Your task to perform on an android device: turn off data saver in the chrome app Image 0: 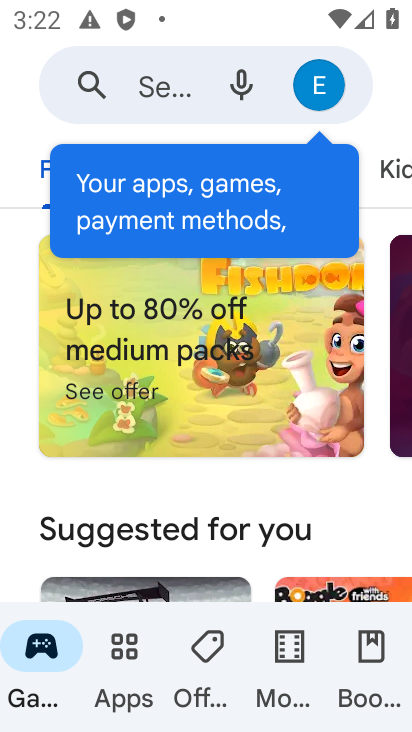
Step 0: press home button
Your task to perform on an android device: turn off data saver in the chrome app Image 1: 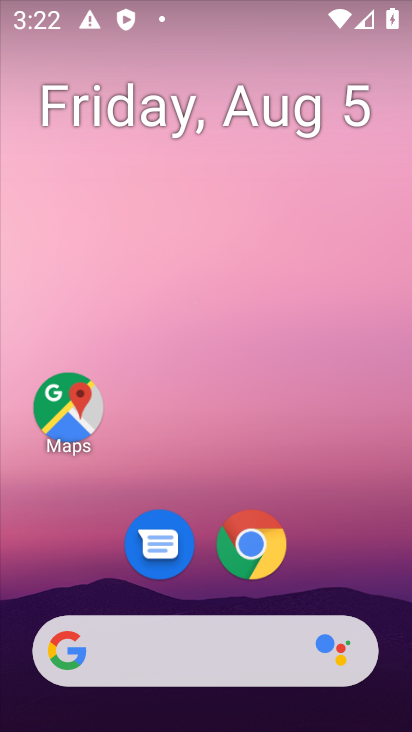
Step 1: click (242, 545)
Your task to perform on an android device: turn off data saver in the chrome app Image 2: 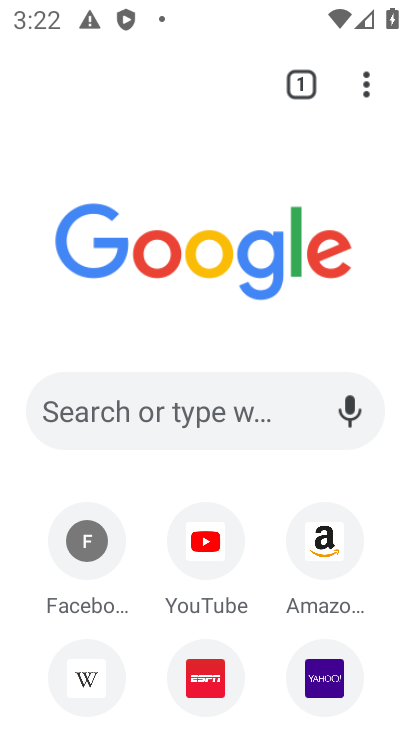
Step 2: click (372, 79)
Your task to perform on an android device: turn off data saver in the chrome app Image 3: 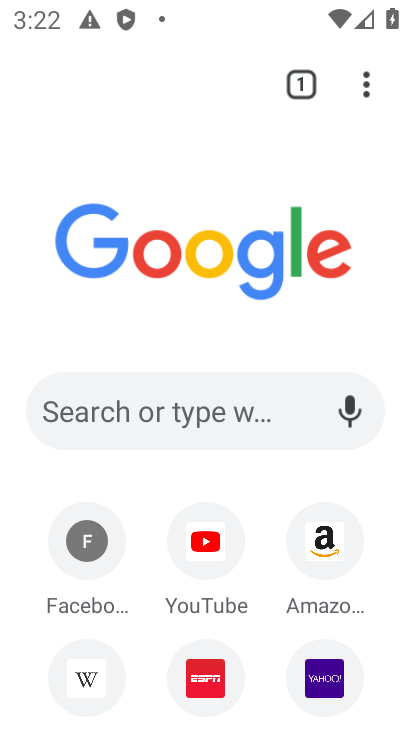
Step 3: click (362, 84)
Your task to perform on an android device: turn off data saver in the chrome app Image 4: 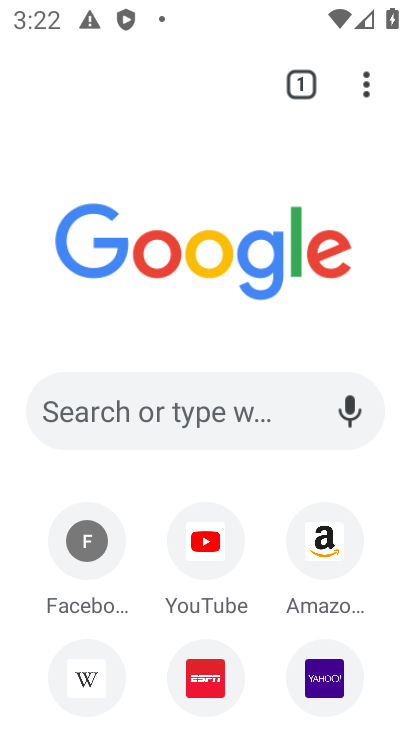
Step 4: click (362, 84)
Your task to perform on an android device: turn off data saver in the chrome app Image 5: 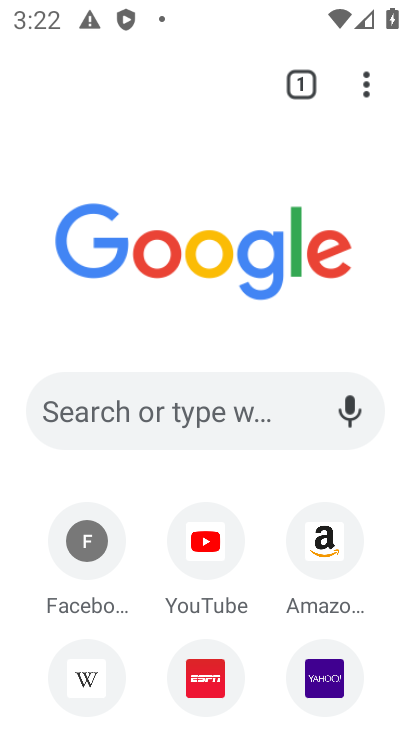
Step 5: click (367, 88)
Your task to perform on an android device: turn off data saver in the chrome app Image 6: 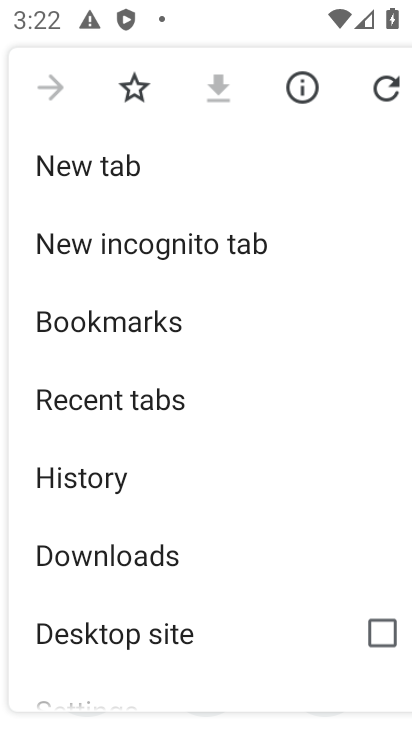
Step 6: drag from (89, 671) to (123, 229)
Your task to perform on an android device: turn off data saver in the chrome app Image 7: 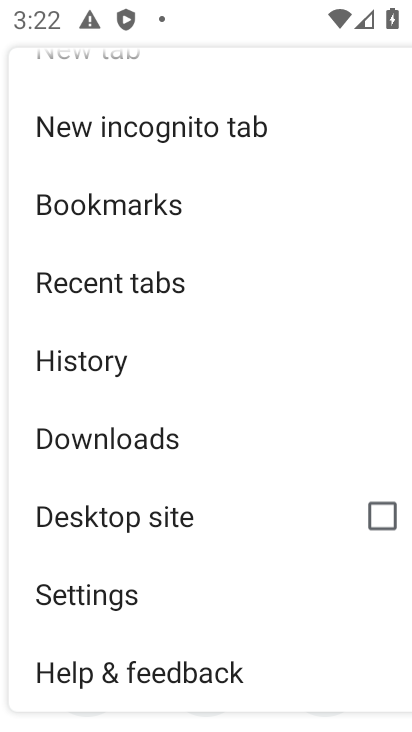
Step 7: click (79, 595)
Your task to perform on an android device: turn off data saver in the chrome app Image 8: 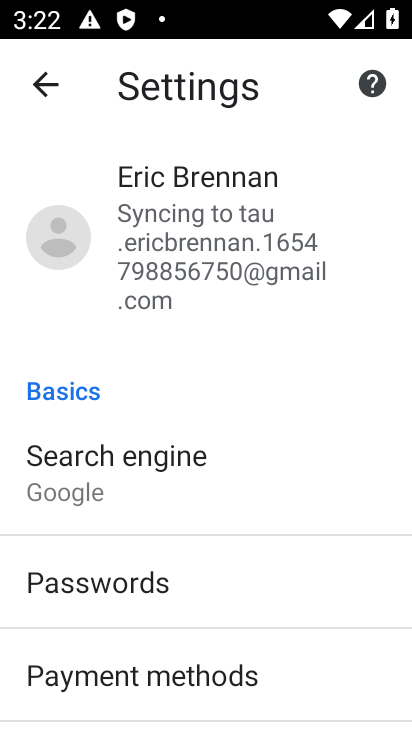
Step 8: drag from (98, 693) to (100, 408)
Your task to perform on an android device: turn off data saver in the chrome app Image 9: 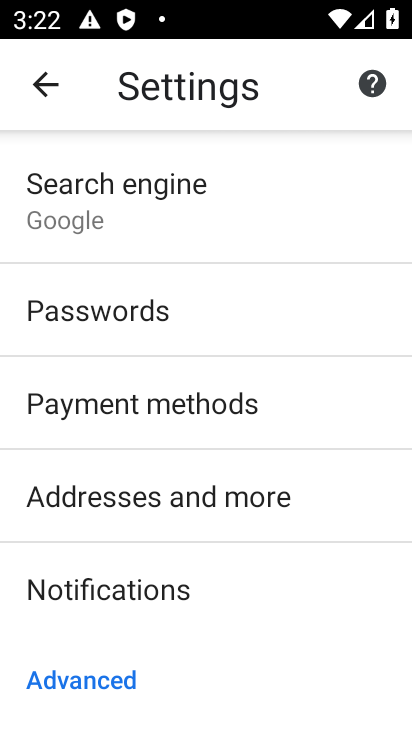
Step 9: drag from (85, 704) to (85, 472)
Your task to perform on an android device: turn off data saver in the chrome app Image 10: 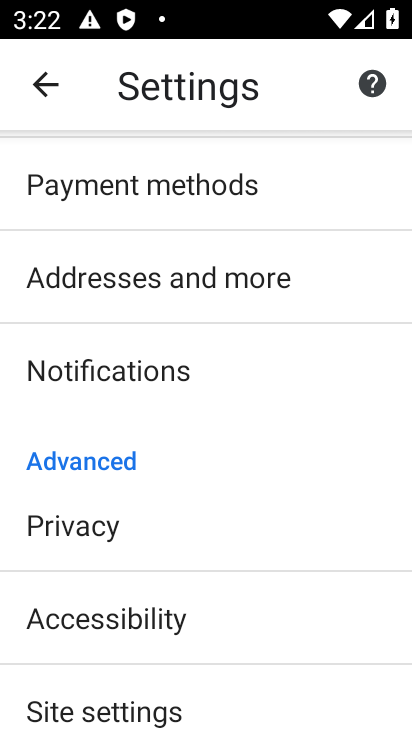
Step 10: drag from (100, 720) to (100, 345)
Your task to perform on an android device: turn off data saver in the chrome app Image 11: 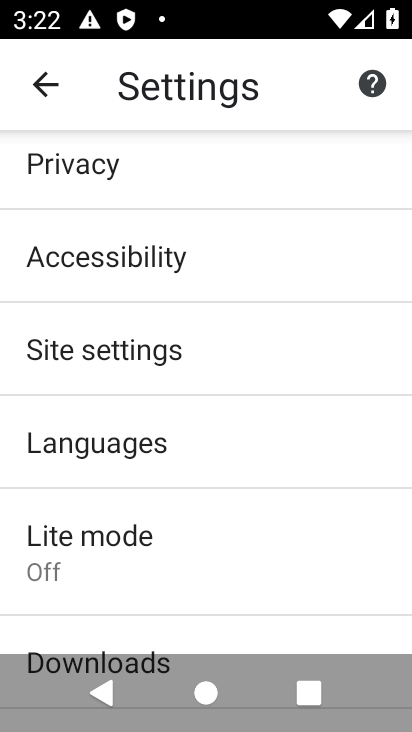
Step 11: click (75, 558)
Your task to perform on an android device: turn off data saver in the chrome app Image 12: 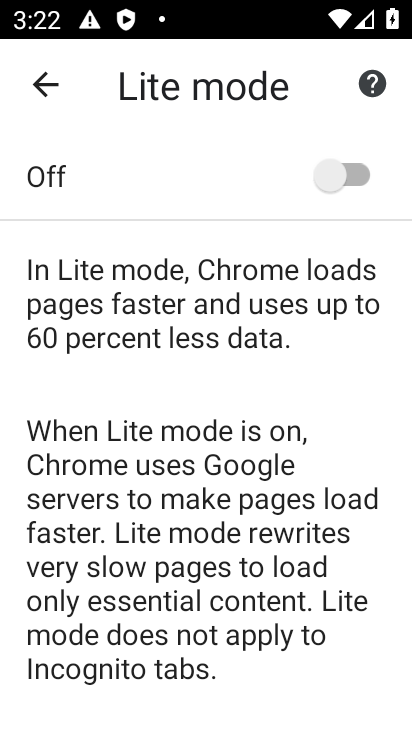
Step 12: task complete